Your task to perform on an android device: remove spam from my inbox in the gmail app Image 0: 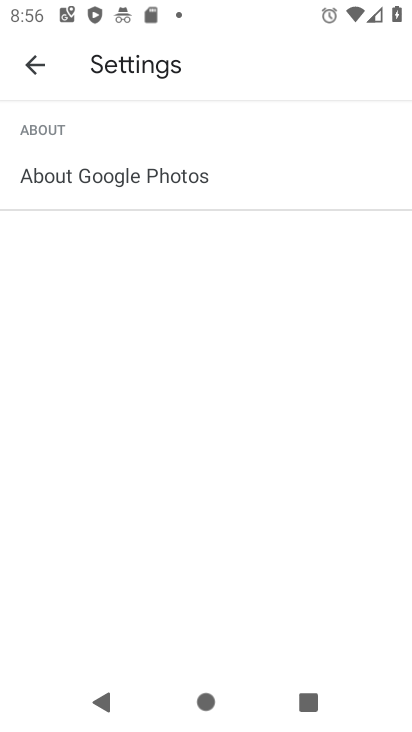
Step 0: press home button
Your task to perform on an android device: remove spam from my inbox in the gmail app Image 1: 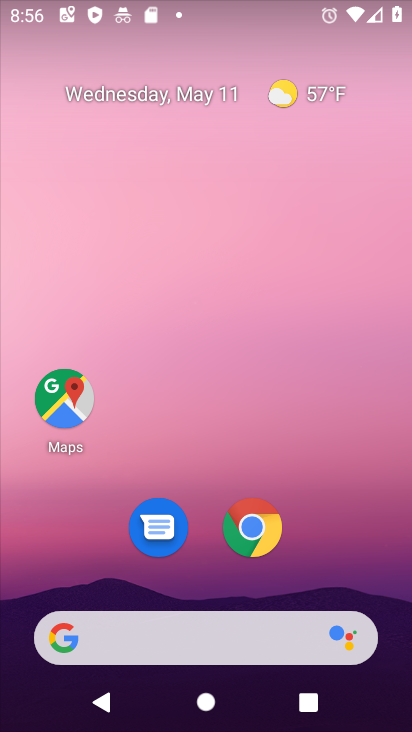
Step 1: drag from (339, 386) to (324, 8)
Your task to perform on an android device: remove spam from my inbox in the gmail app Image 2: 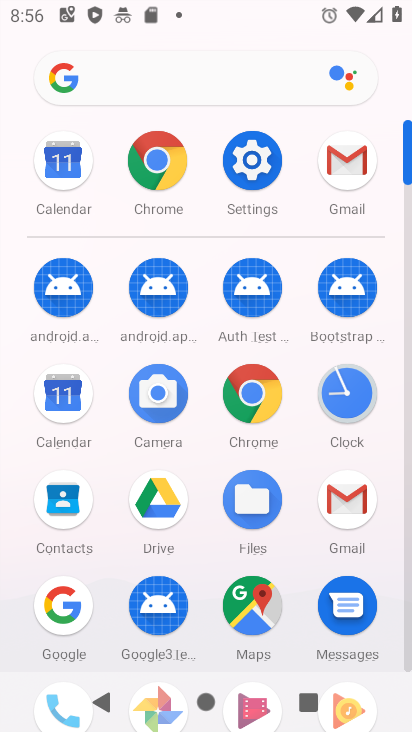
Step 2: click (344, 164)
Your task to perform on an android device: remove spam from my inbox in the gmail app Image 3: 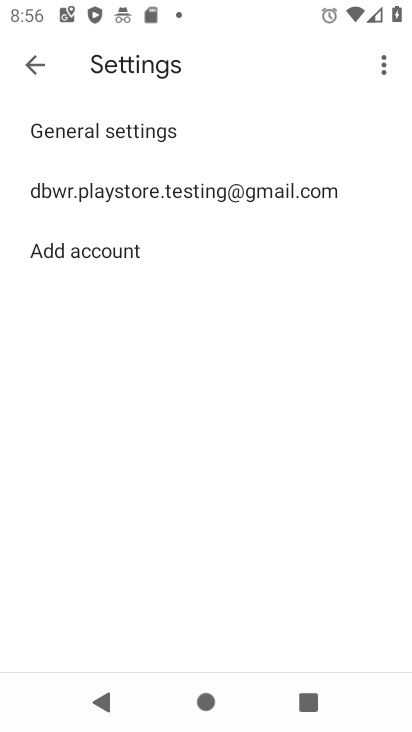
Step 3: click (34, 72)
Your task to perform on an android device: remove spam from my inbox in the gmail app Image 4: 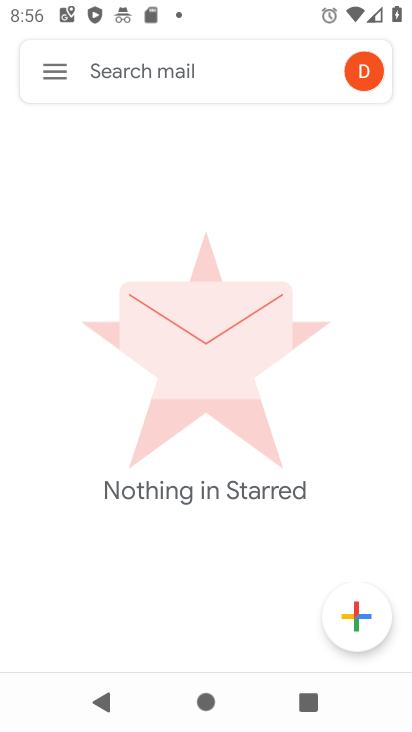
Step 4: click (46, 70)
Your task to perform on an android device: remove spam from my inbox in the gmail app Image 5: 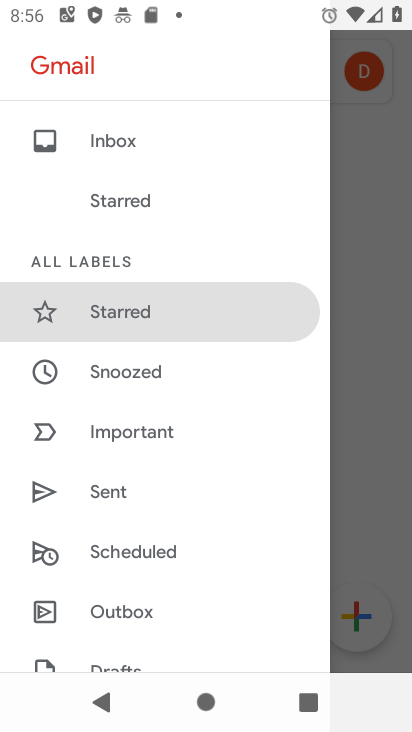
Step 5: drag from (232, 462) to (217, 140)
Your task to perform on an android device: remove spam from my inbox in the gmail app Image 6: 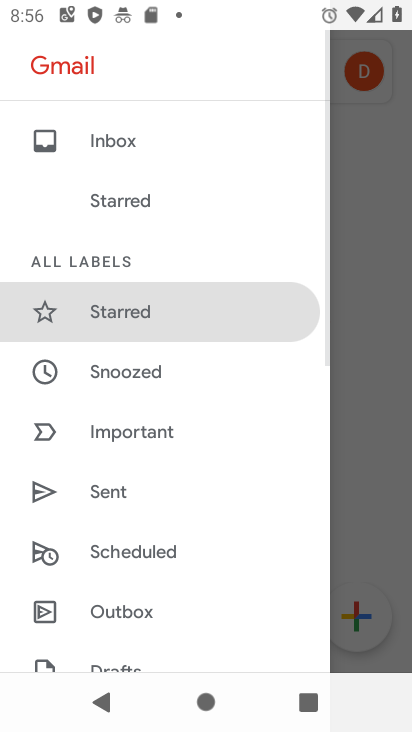
Step 6: drag from (185, 359) to (166, 174)
Your task to perform on an android device: remove spam from my inbox in the gmail app Image 7: 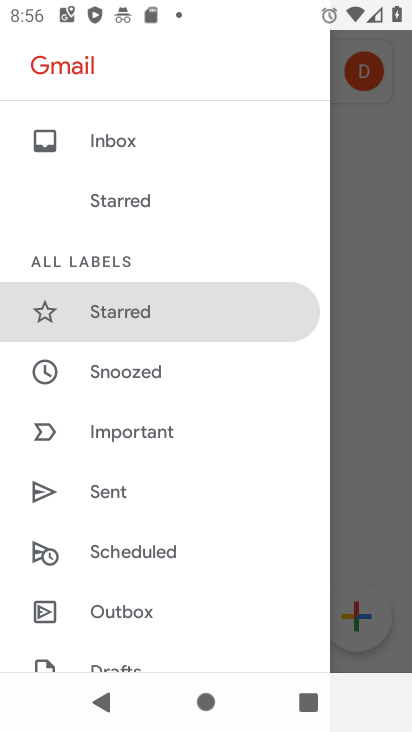
Step 7: drag from (207, 525) to (215, 149)
Your task to perform on an android device: remove spam from my inbox in the gmail app Image 8: 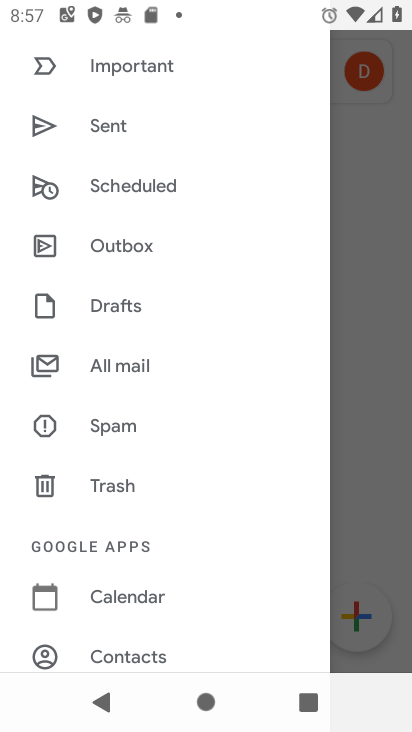
Step 8: click (102, 424)
Your task to perform on an android device: remove spam from my inbox in the gmail app Image 9: 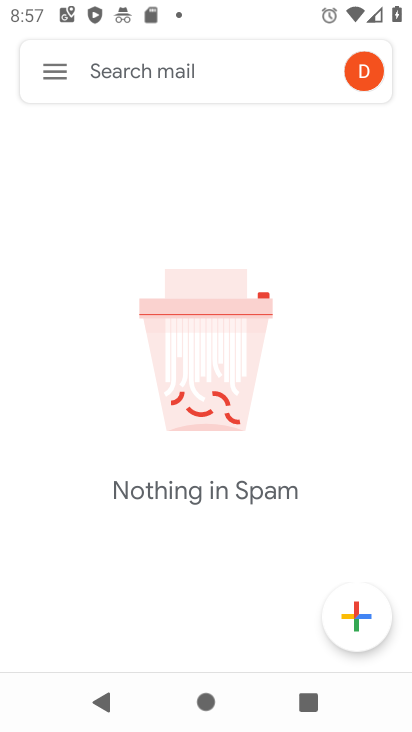
Step 9: task complete